Your task to perform on an android device: Toggle the flashlight Image 0: 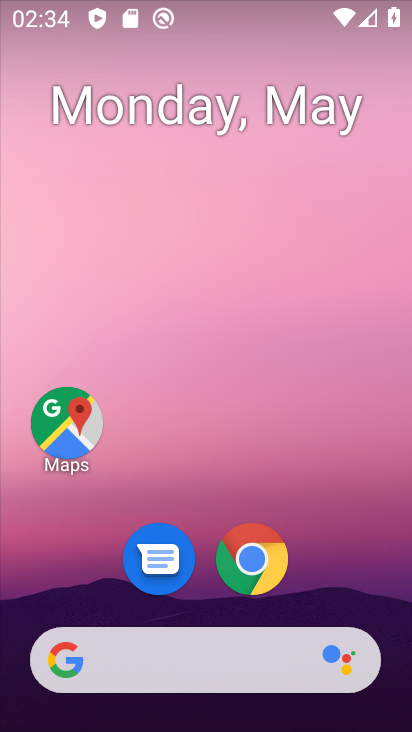
Step 0: drag from (314, 504) to (280, 8)
Your task to perform on an android device: Toggle the flashlight Image 1: 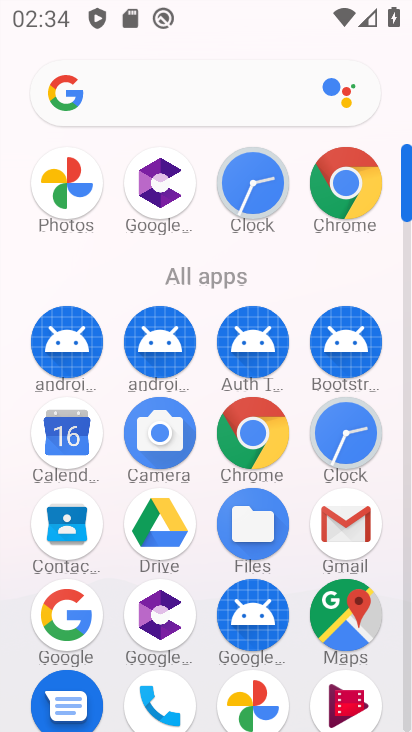
Step 1: drag from (8, 537) to (25, 184)
Your task to perform on an android device: Toggle the flashlight Image 2: 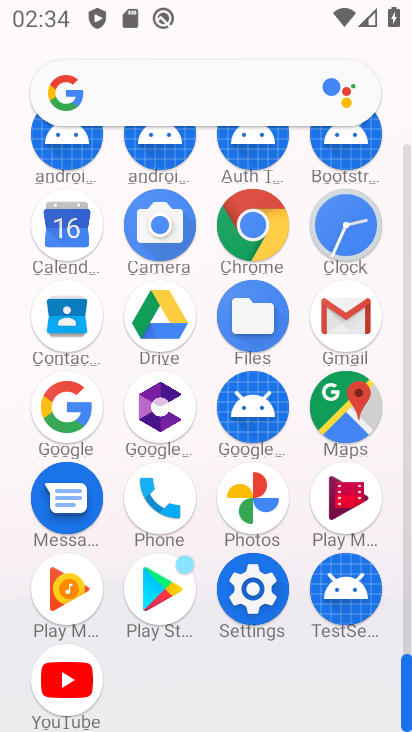
Step 2: click (255, 580)
Your task to perform on an android device: Toggle the flashlight Image 3: 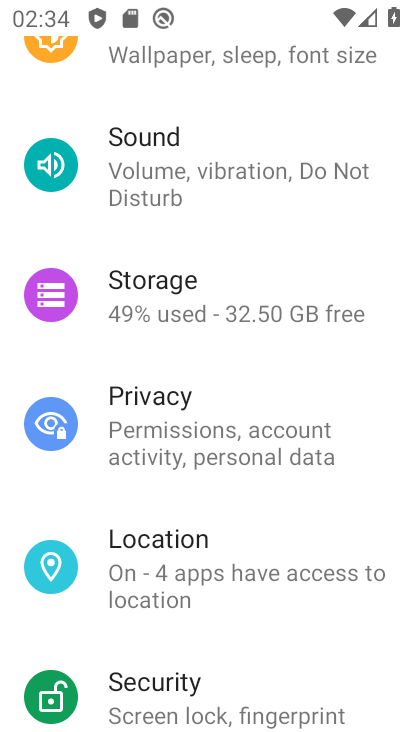
Step 3: drag from (255, 182) to (250, 640)
Your task to perform on an android device: Toggle the flashlight Image 4: 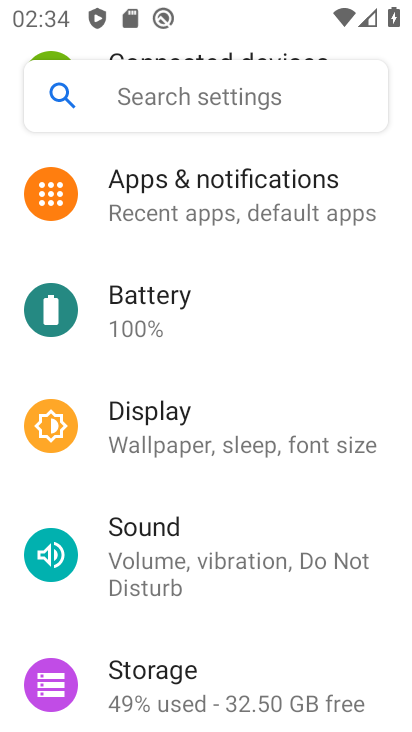
Step 4: drag from (233, 211) to (253, 606)
Your task to perform on an android device: Toggle the flashlight Image 5: 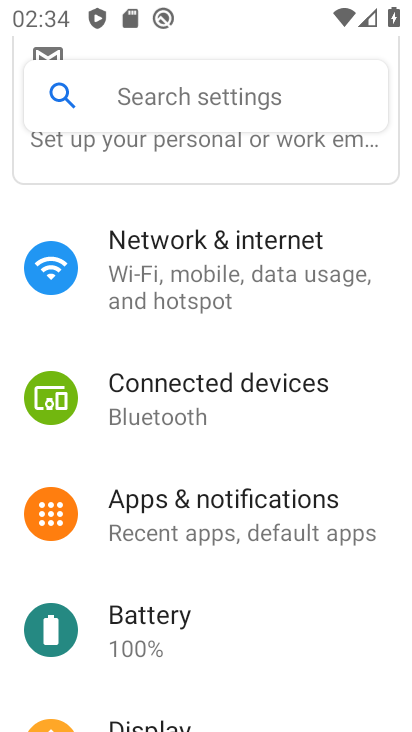
Step 5: click (250, 307)
Your task to perform on an android device: Toggle the flashlight Image 6: 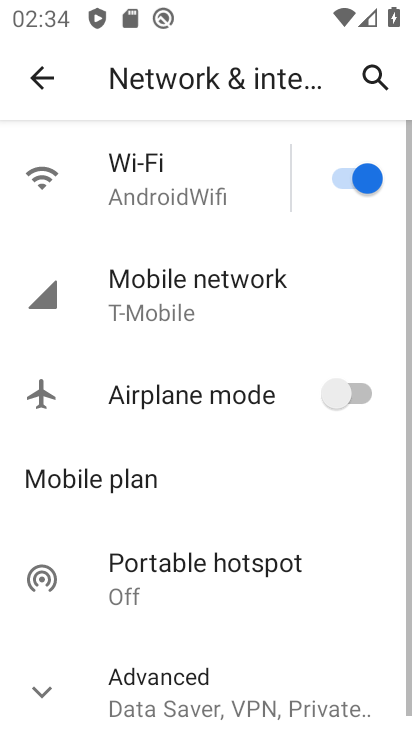
Step 6: drag from (237, 616) to (229, 110)
Your task to perform on an android device: Toggle the flashlight Image 7: 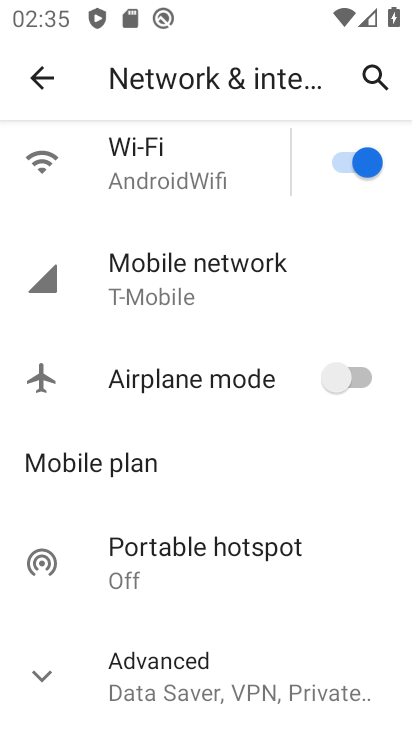
Step 7: click (42, 671)
Your task to perform on an android device: Toggle the flashlight Image 8: 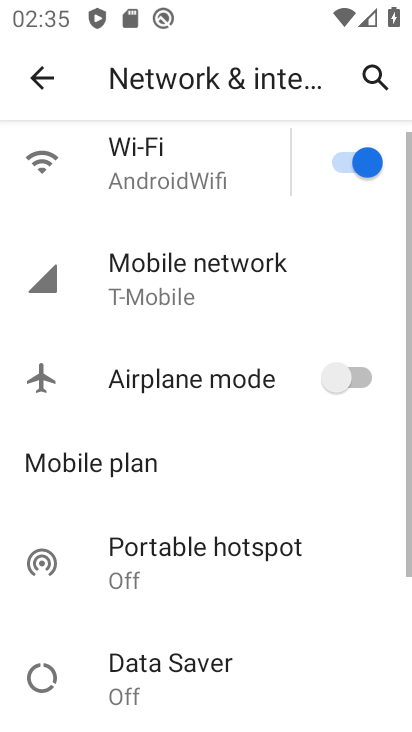
Step 8: task complete